Your task to perform on an android device: Open the web browser Image 0: 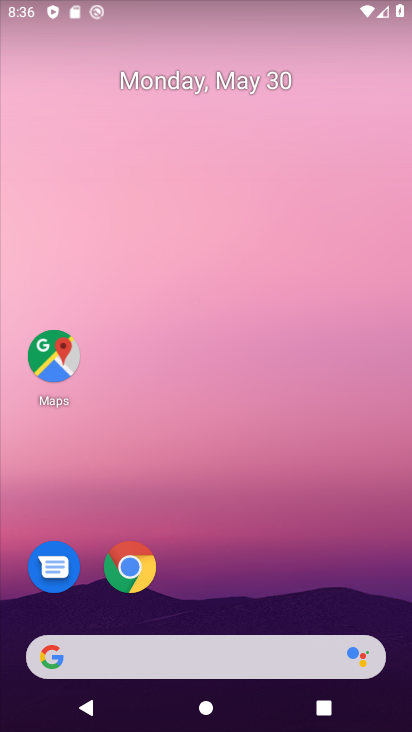
Step 0: click (123, 570)
Your task to perform on an android device: Open the web browser Image 1: 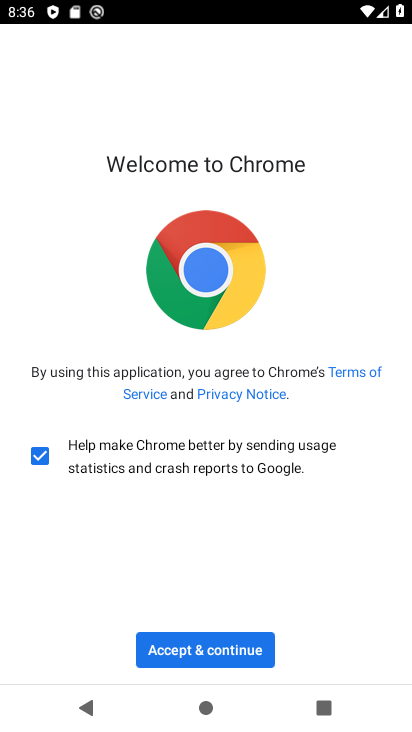
Step 1: click (219, 647)
Your task to perform on an android device: Open the web browser Image 2: 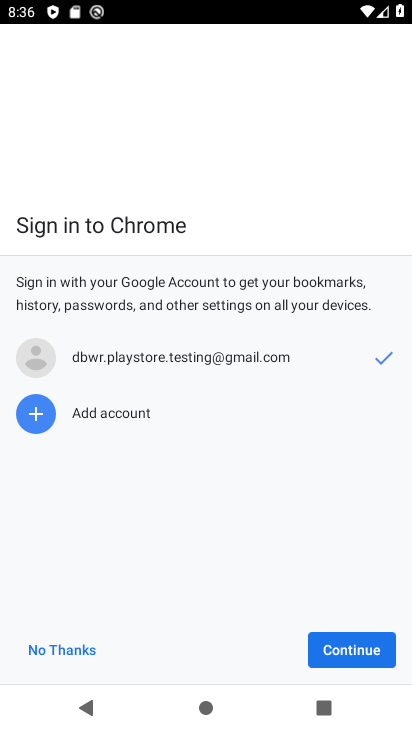
Step 2: click (372, 647)
Your task to perform on an android device: Open the web browser Image 3: 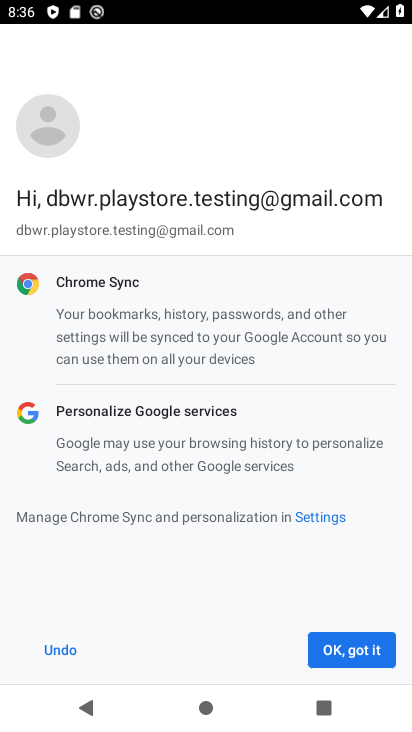
Step 3: click (372, 652)
Your task to perform on an android device: Open the web browser Image 4: 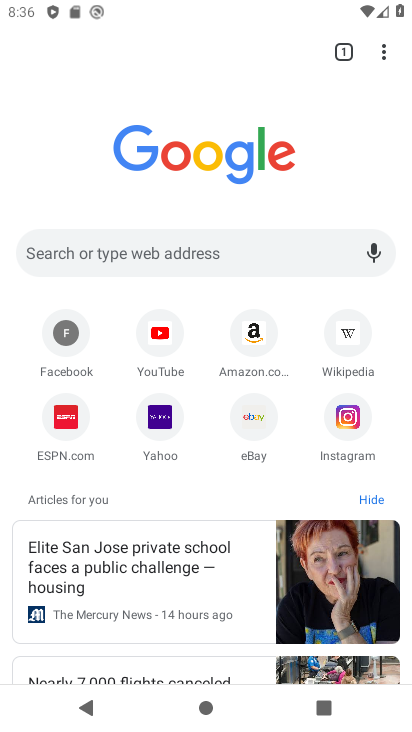
Step 4: task complete